Your task to perform on an android device: change timer sound Image 0: 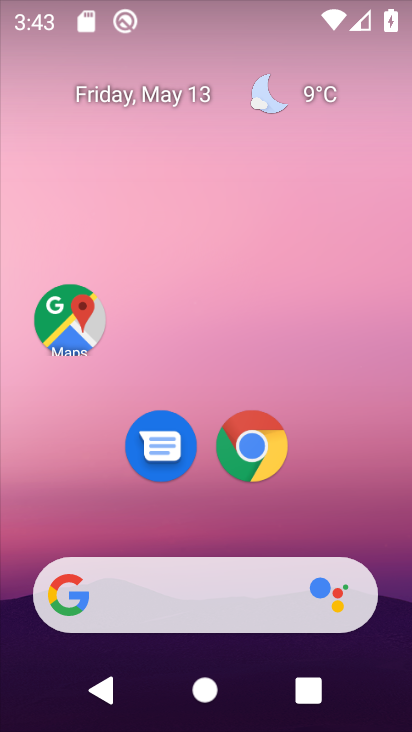
Step 0: drag from (235, 504) to (294, 8)
Your task to perform on an android device: change timer sound Image 1: 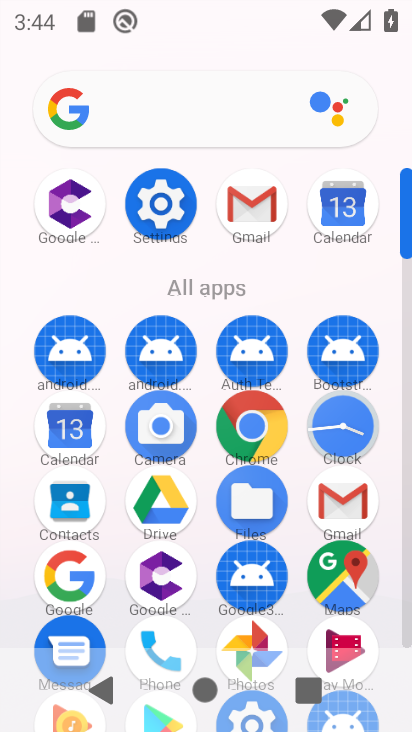
Step 1: click (162, 209)
Your task to perform on an android device: change timer sound Image 2: 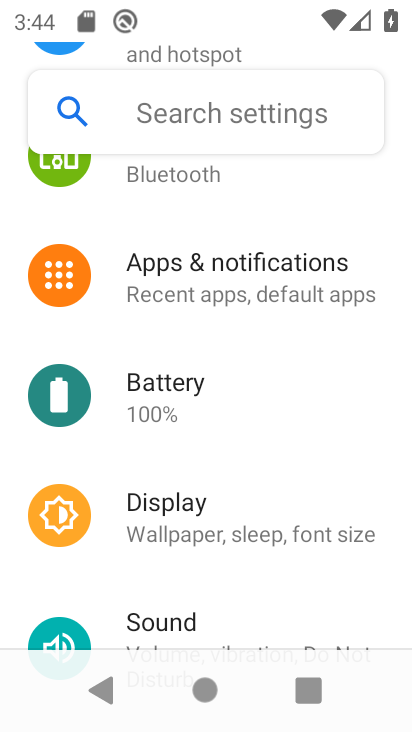
Step 2: click (187, 625)
Your task to perform on an android device: change timer sound Image 3: 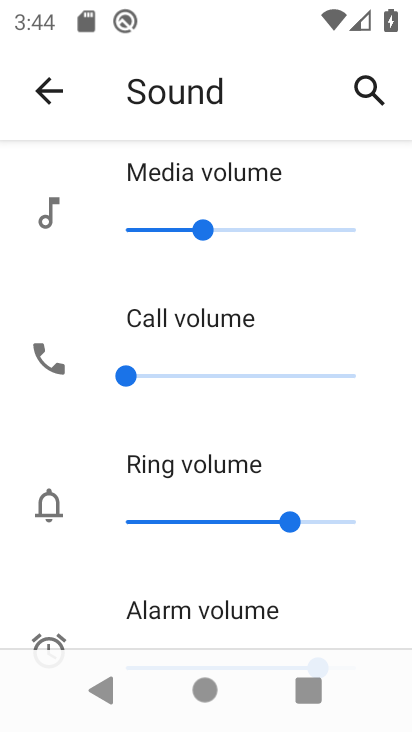
Step 3: task complete